Your task to perform on an android device: turn on the 12-hour format for clock Image 0: 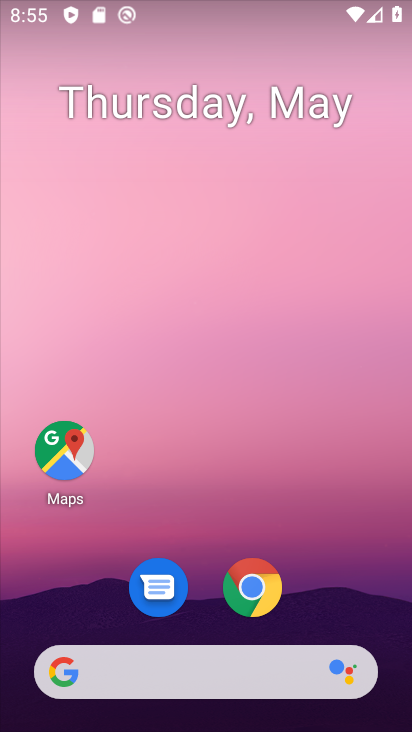
Step 0: drag from (387, 585) to (343, 77)
Your task to perform on an android device: turn on the 12-hour format for clock Image 1: 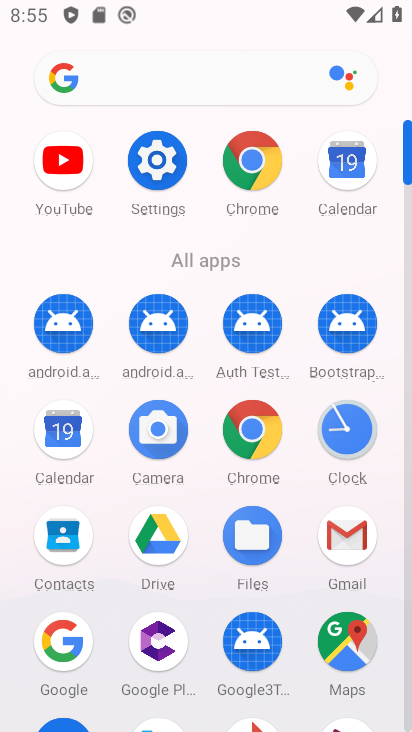
Step 1: click (360, 433)
Your task to perform on an android device: turn on the 12-hour format for clock Image 2: 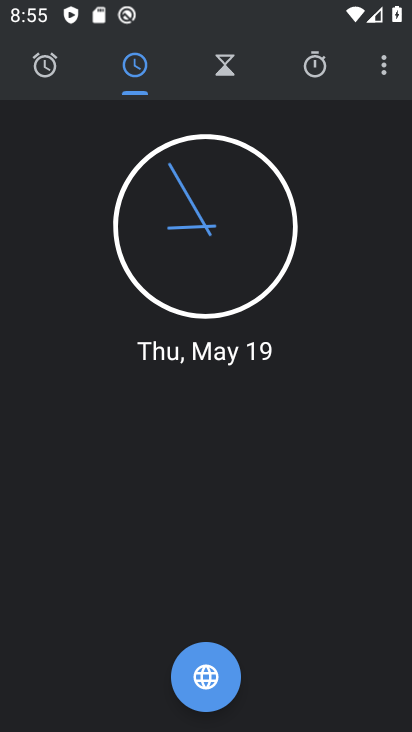
Step 2: click (399, 66)
Your task to perform on an android device: turn on the 12-hour format for clock Image 3: 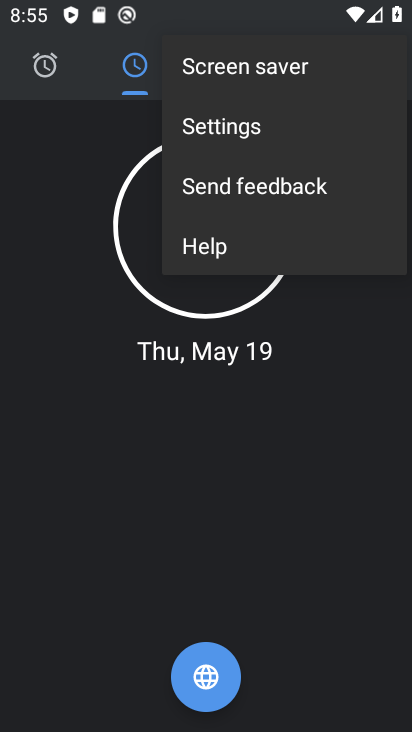
Step 3: click (210, 133)
Your task to perform on an android device: turn on the 12-hour format for clock Image 4: 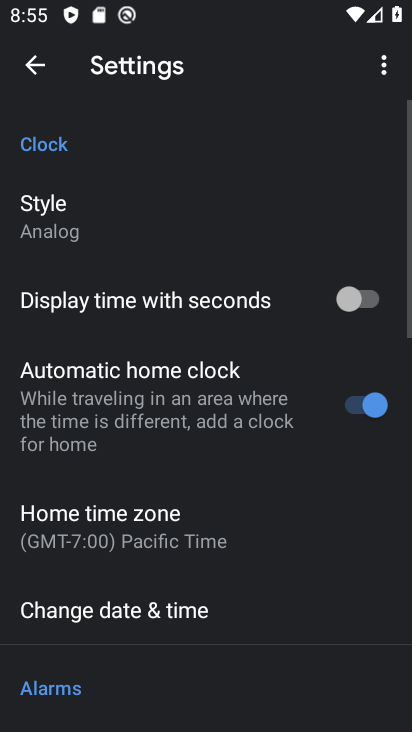
Step 4: drag from (252, 585) to (262, 179)
Your task to perform on an android device: turn on the 12-hour format for clock Image 5: 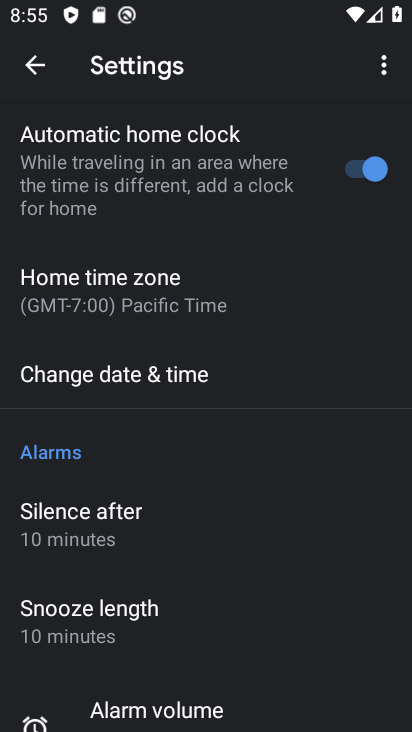
Step 5: drag from (245, 659) to (233, 204)
Your task to perform on an android device: turn on the 12-hour format for clock Image 6: 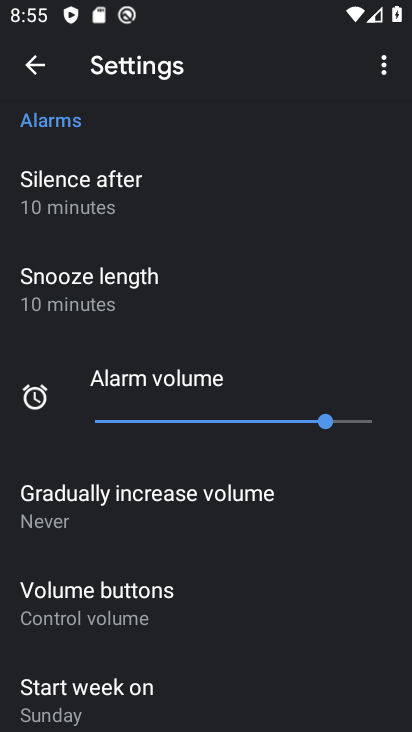
Step 6: drag from (309, 369) to (394, 718)
Your task to perform on an android device: turn on the 12-hour format for clock Image 7: 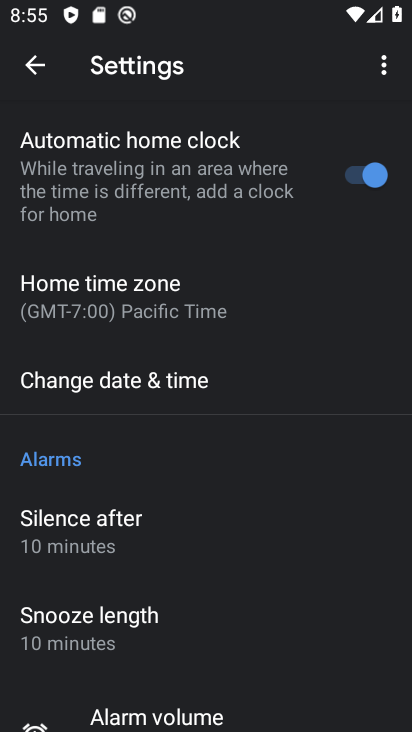
Step 7: drag from (282, 348) to (301, 642)
Your task to perform on an android device: turn on the 12-hour format for clock Image 8: 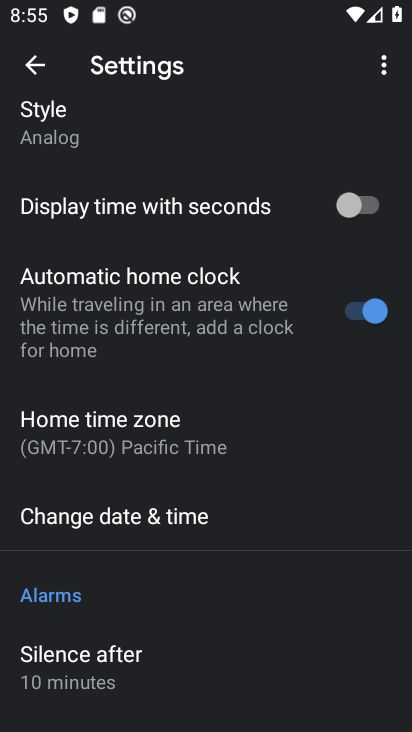
Step 8: click (144, 520)
Your task to perform on an android device: turn on the 12-hour format for clock Image 9: 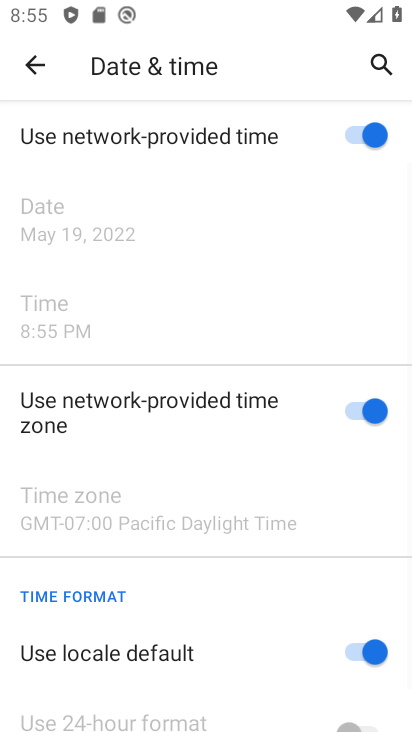
Step 9: drag from (228, 634) to (222, 211)
Your task to perform on an android device: turn on the 12-hour format for clock Image 10: 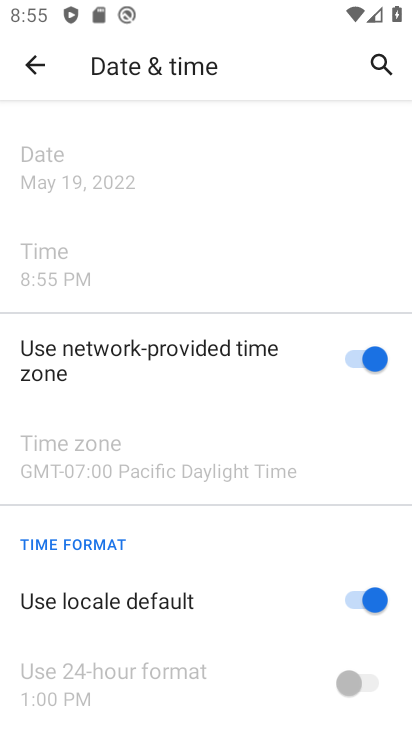
Step 10: drag from (264, 647) to (230, 316)
Your task to perform on an android device: turn on the 12-hour format for clock Image 11: 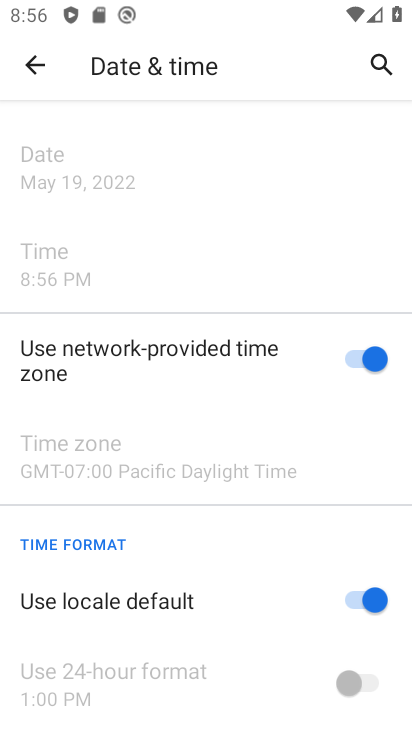
Step 11: click (354, 606)
Your task to perform on an android device: turn on the 12-hour format for clock Image 12: 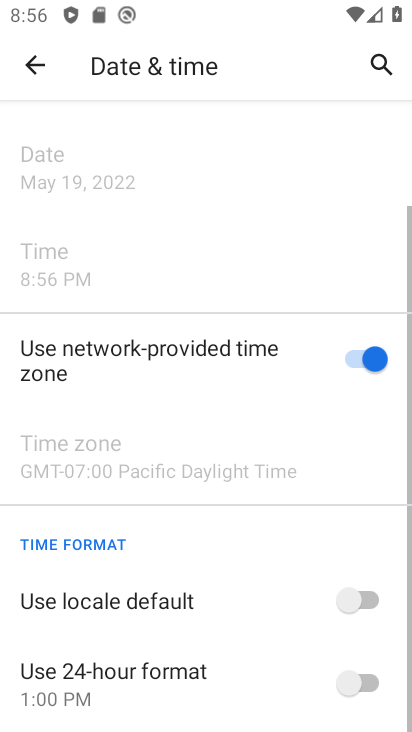
Step 12: click (355, 606)
Your task to perform on an android device: turn on the 12-hour format for clock Image 13: 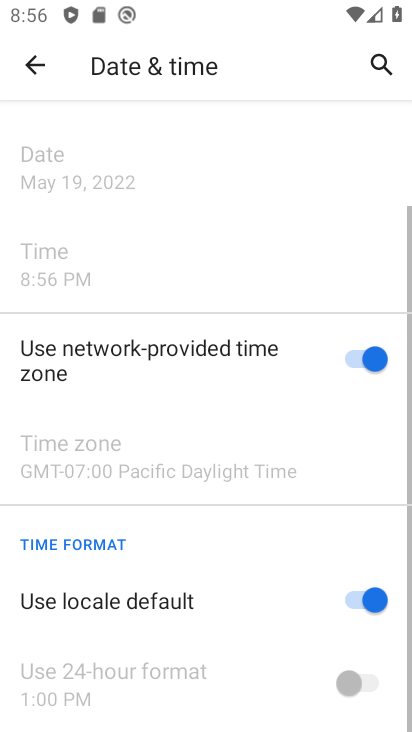
Step 13: task complete